Your task to perform on an android device: Search for usb-a to usb-b on costco, select the first entry, and add it to the cart. Image 0: 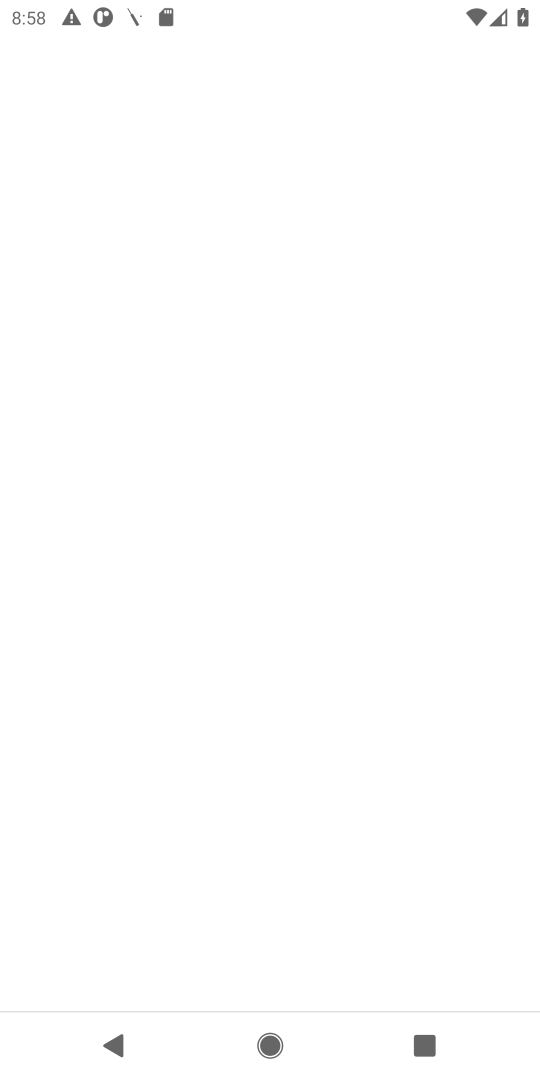
Step 0: press home button
Your task to perform on an android device: Search for usb-a to usb-b on costco, select the first entry, and add it to the cart. Image 1: 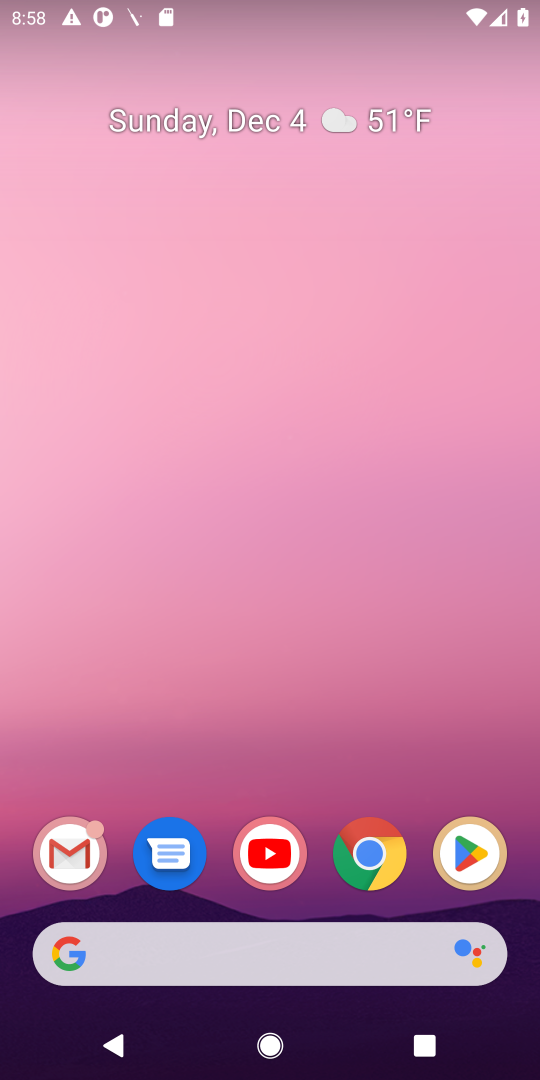
Step 1: click (345, 863)
Your task to perform on an android device: Search for usb-a to usb-b on costco, select the first entry, and add it to the cart. Image 2: 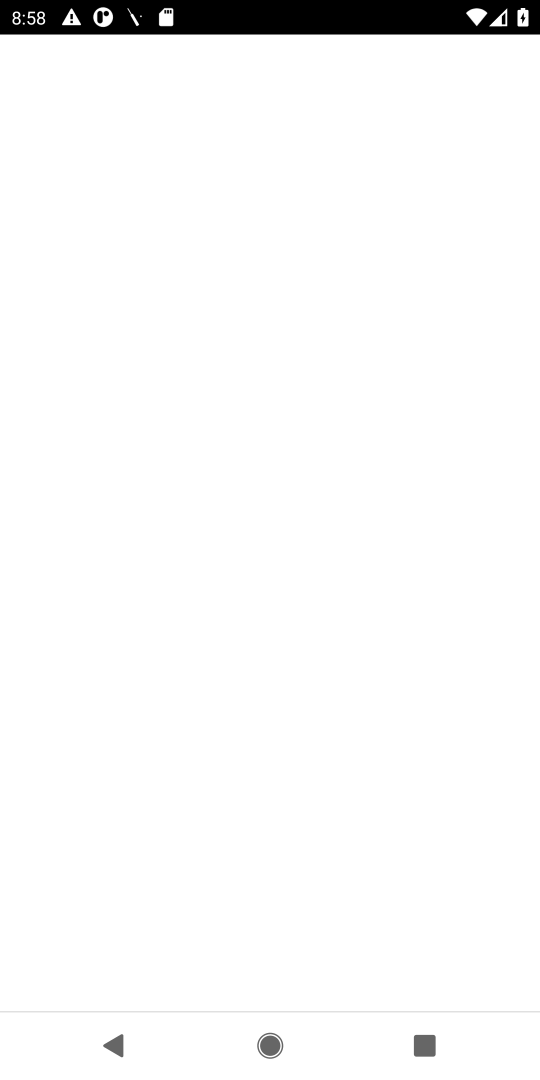
Step 2: task complete